Your task to perform on an android device: uninstall "Reddit" Image 0: 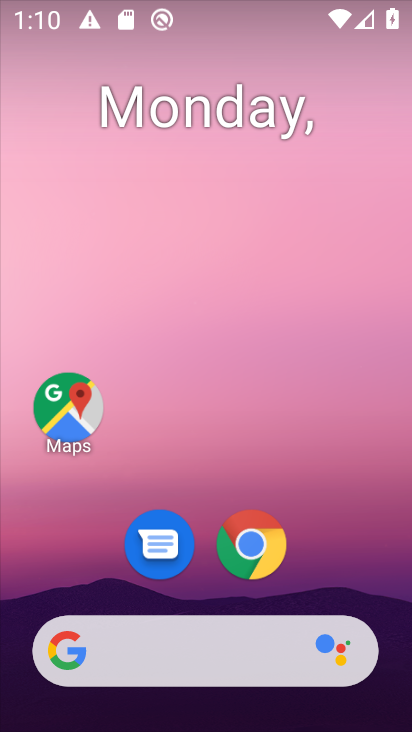
Step 0: drag from (337, 590) to (251, 62)
Your task to perform on an android device: uninstall "Reddit" Image 1: 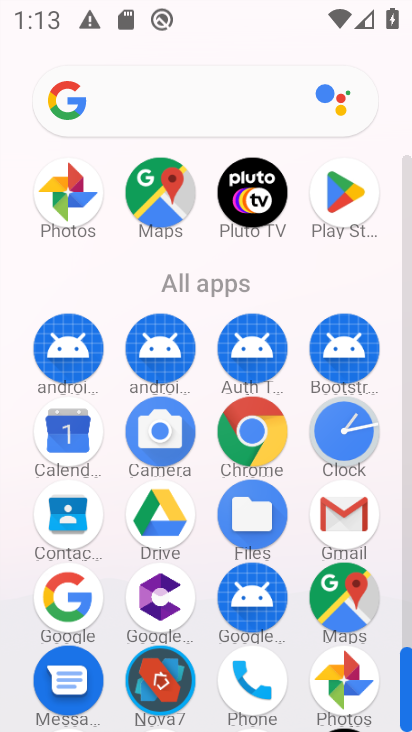
Step 1: click (350, 205)
Your task to perform on an android device: uninstall "Reddit" Image 2: 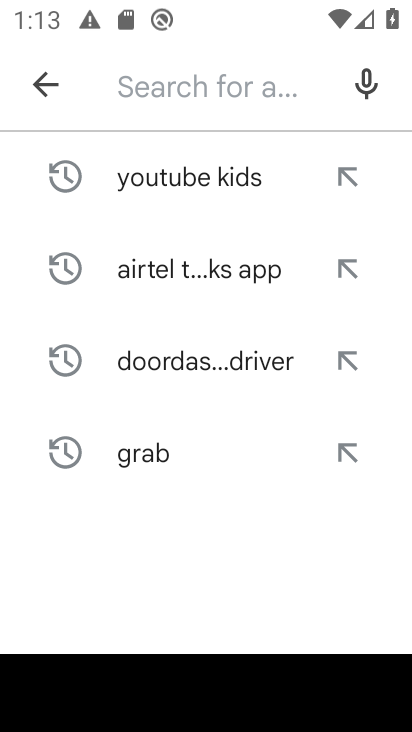
Step 2: click (219, 92)
Your task to perform on an android device: uninstall "Reddit" Image 3: 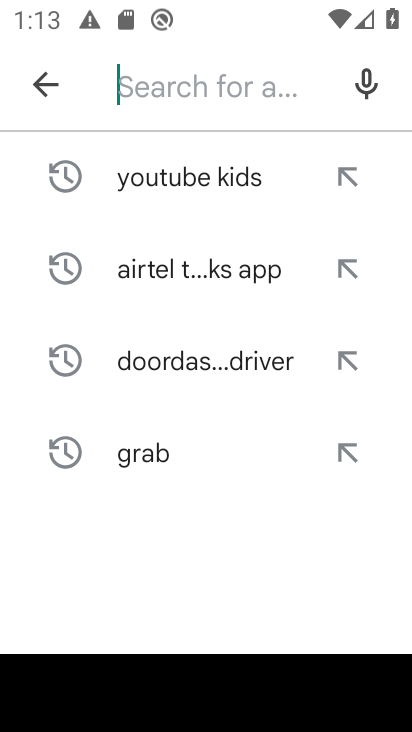
Step 3: type "Reddit"
Your task to perform on an android device: uninstall "Reddit" Image 4: 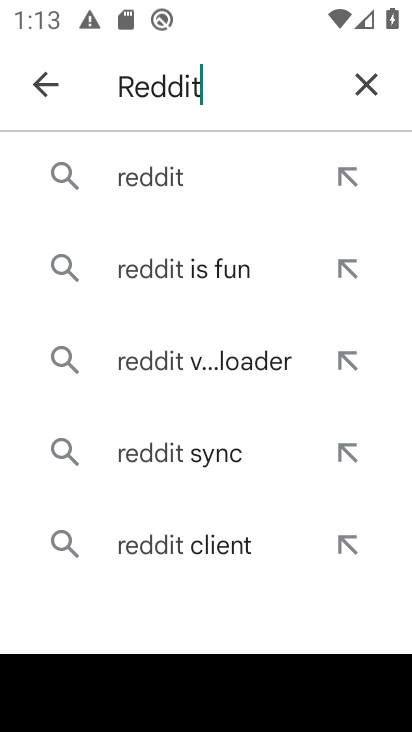
Step 4: click (140, 184)
Your task to perform on an android device: uninstall "Reddit" Image 5: 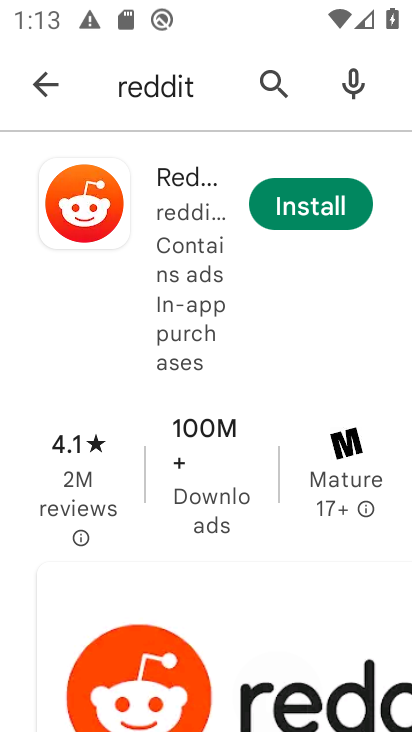
Step 5: task complete